Your task to perform on an android device: When is my next meeting? Image 0: 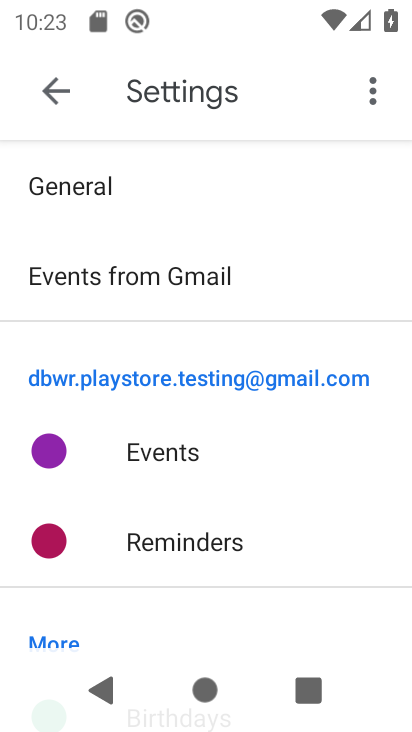
Step 0: press home button
Your task to perform on an android device: When is my next meeting? Image 1: 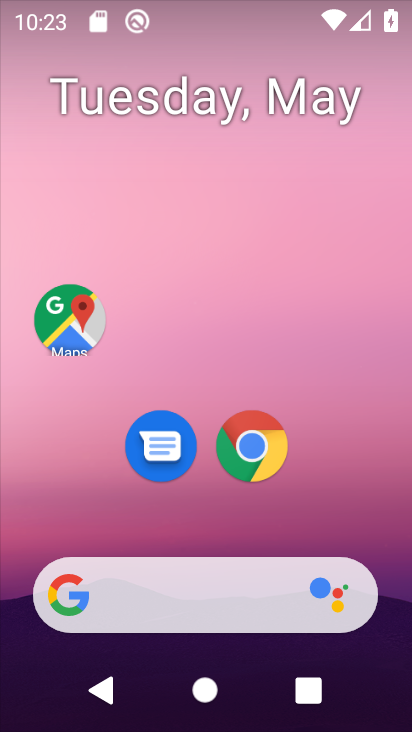
Step 1: drag from (228, 523) to (255, 185)
Your task to perform on an android device: When is my next meeting? Image 2: 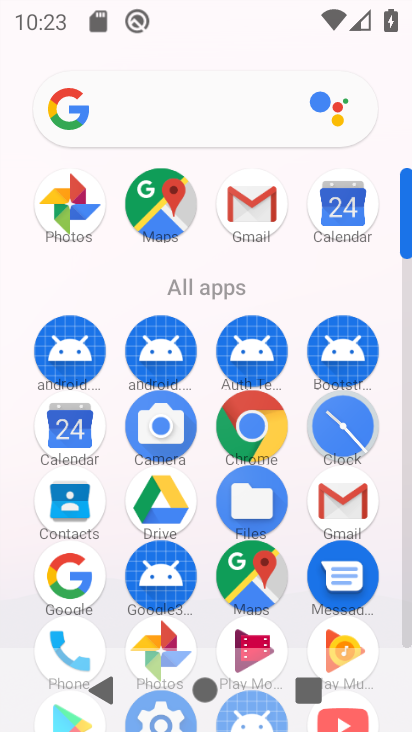
Step 2: click (55, 436)
Your task to perform on an android device: When is my next meeting? Image 3: 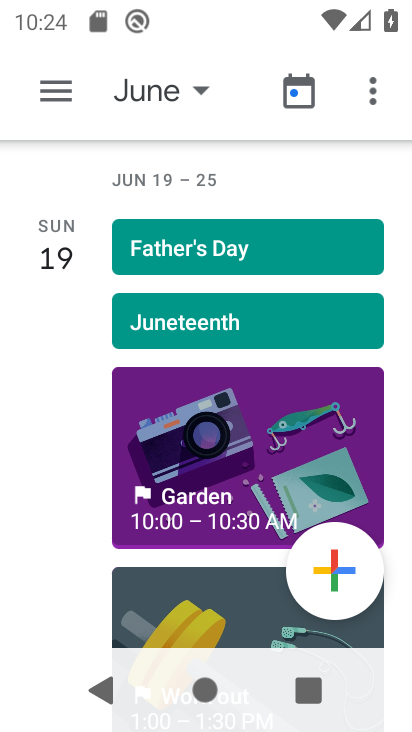
Step 3: click (72, 101)
Your task to perform on an android device: When is my next meeting? Image 4: 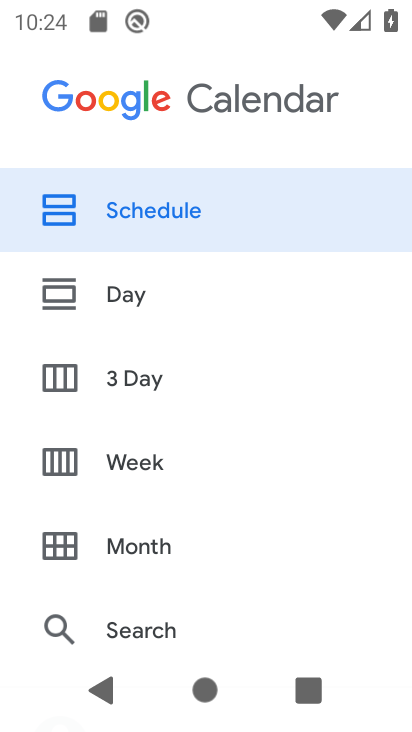
Step 4: click (114, 300)
Your task to perform on an android device: When is my next meeting? Image 5: 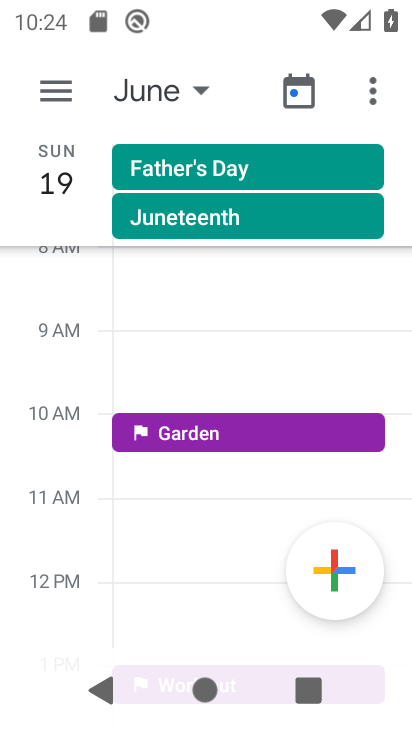
Step 5: task complete